Your task to perform on an android device: Search for Mexican restaurants on Maps Image 0: 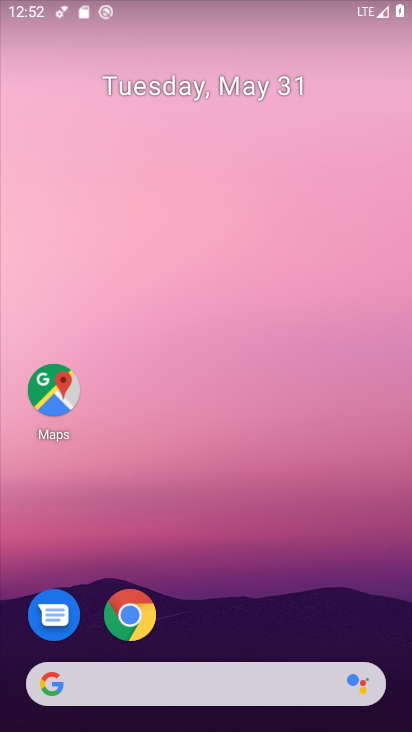
Step 0: click (48, 382)
Your task to perform on an android device: Search for Mexican restaurants on Maps Image 1: 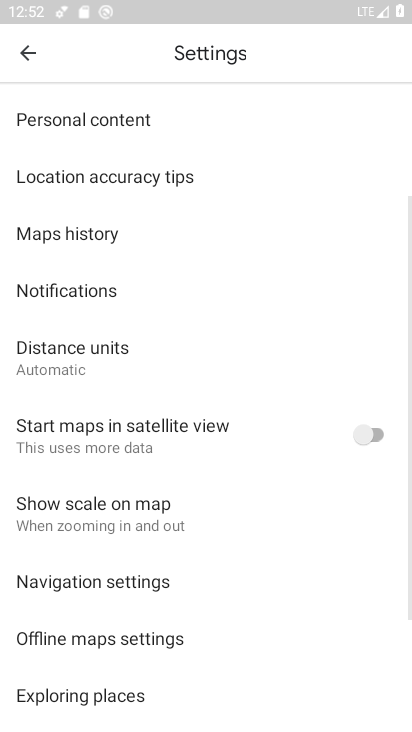
Step 1: click (27, 54)
Your task to perform on an android device: Search for Mexican restaurants on Maps Image 2: 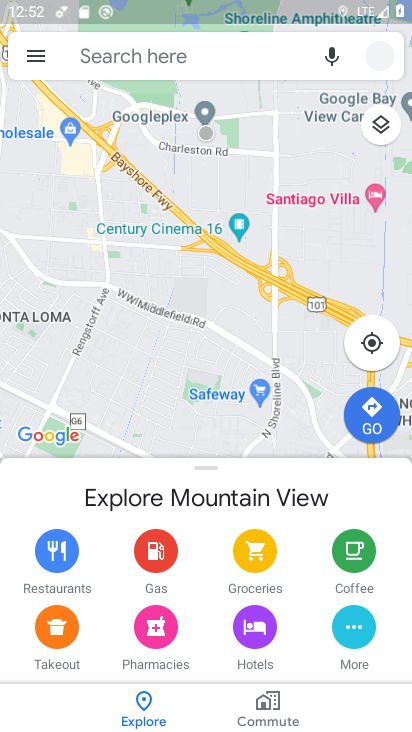
Step 2: click (120, 58)
Your task to perform on an android device: Search for Mexican restaurants on Maps Image 3: 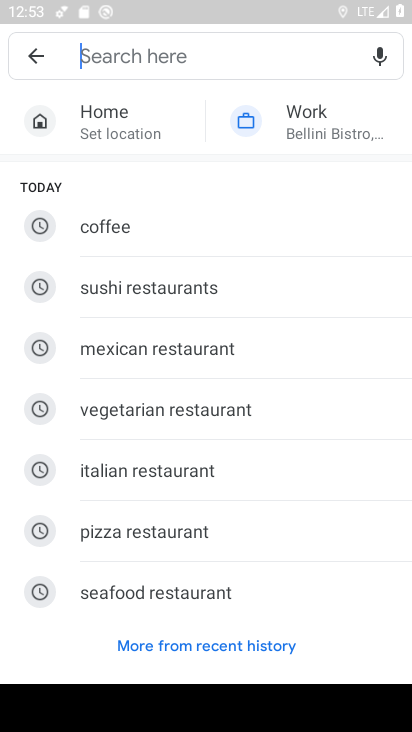
Step 3: type "Mexican restaurants"
Your task to perform on an android device: Search for Mexican restaurants on Maps Image 4: 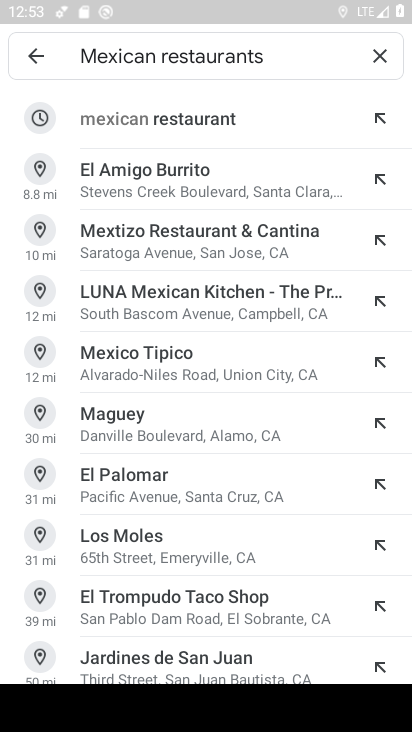
Step 4: click (156, 122)
Your task to perform on an android device: Search for Mexican restaurants on Maps Image 5: 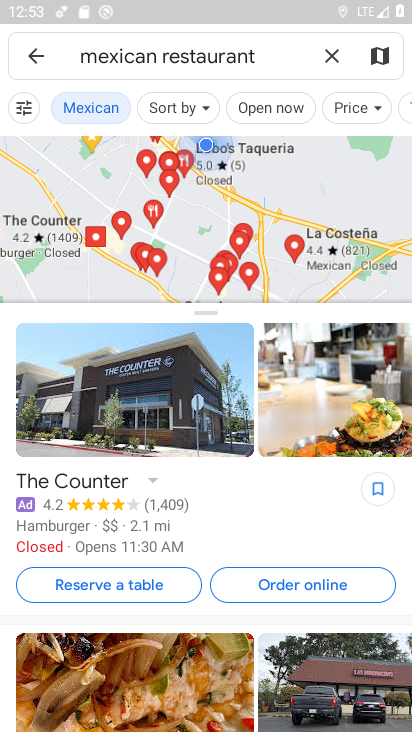
Step 5: task complete